Your task to perform on an android device: Search for "apple airpods pro" on target.com, select the first entry, and add it to the cart. Image 0: 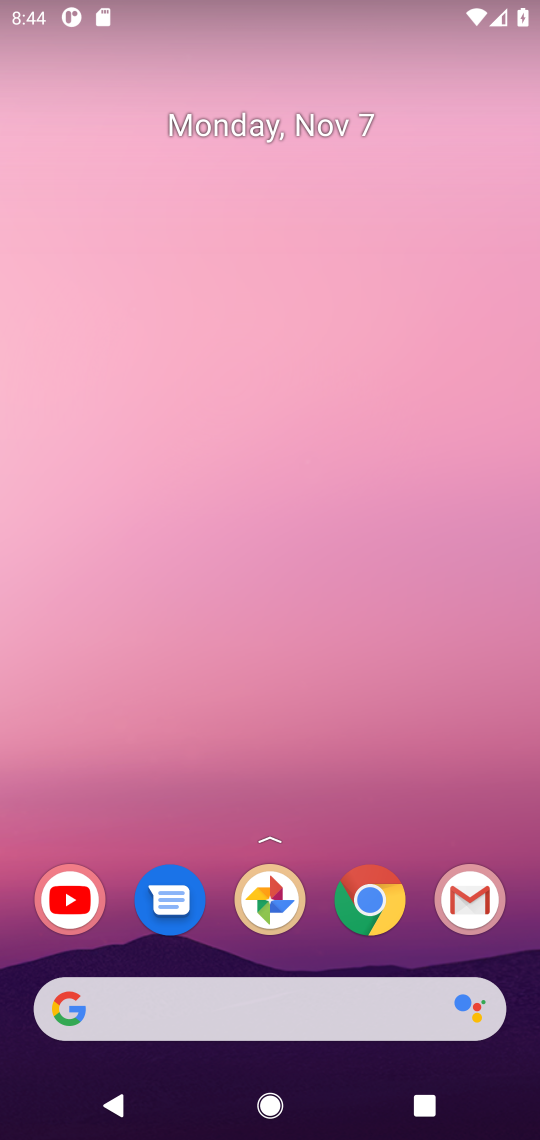
Step 0: drag from (266, 961) to (386, 197)
Your task to perform on an android device: Search for "apple airpods pro" on target.com, select the first entry, and add it to the cart. Image 1: 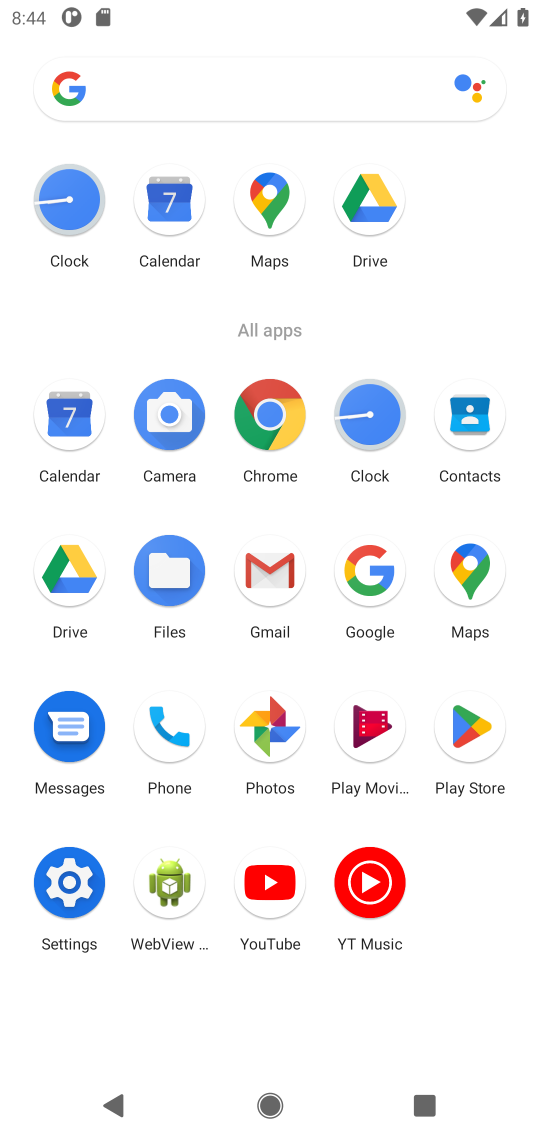
Step 1: click (381, 603)
Your task to perform on an android device: Search for "apple airpods pro" on target.com, select the first entry, and add it to the cart. Image 2: 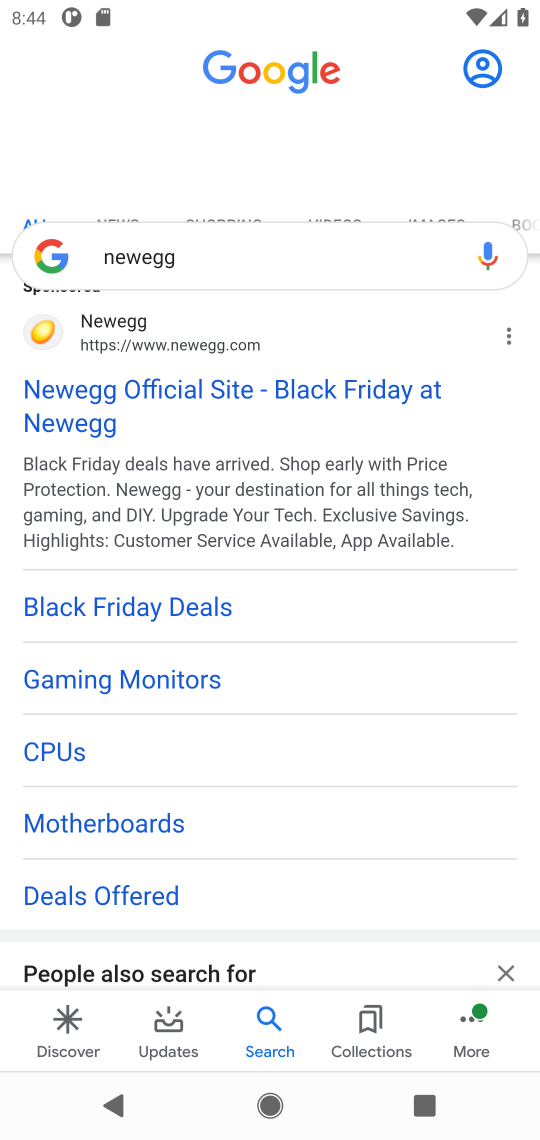
Step 2: click (323, 249)
Your task to perform on an android device: Search for "apple airpods pro" on target.com, select the first entry, and add it to the cart. Image 3: 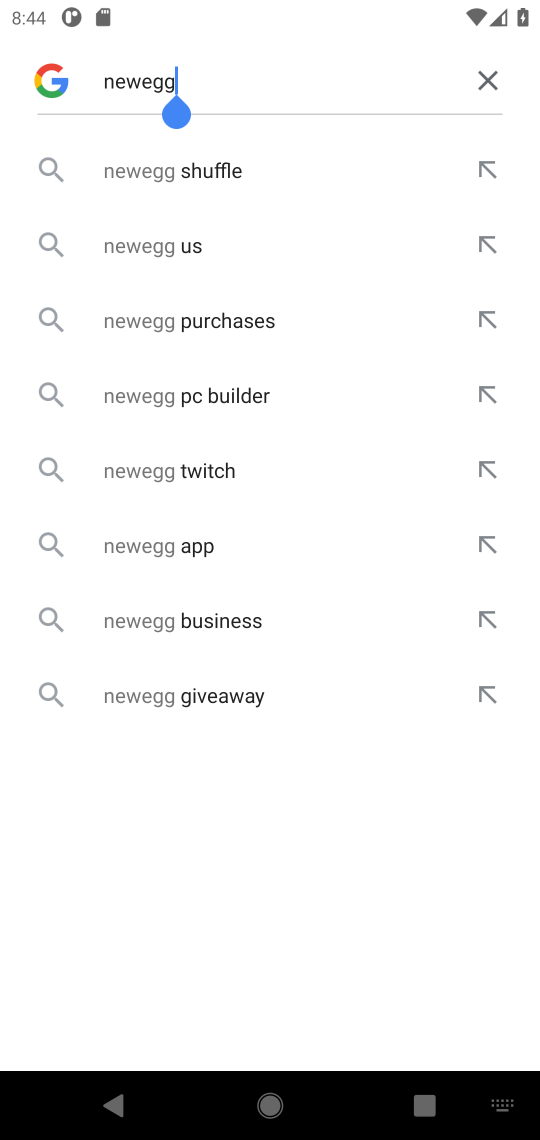
Step 3: click (490, 88)
Your task to perform on an android device: Search for "apple airpods pro" on target.com, select the first entry, and add it to the cart. Image 4: 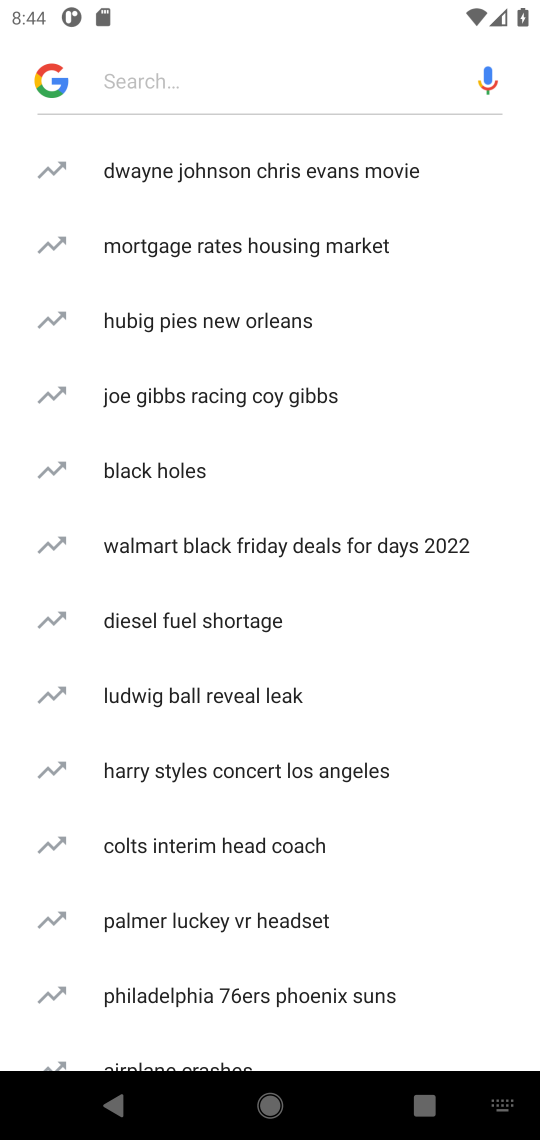
Step 4: type "target.com"
Your task to perform on an android device: Search for "apple airpods pro" on target.com, select the first entry, and add it to the cart. Image 5: 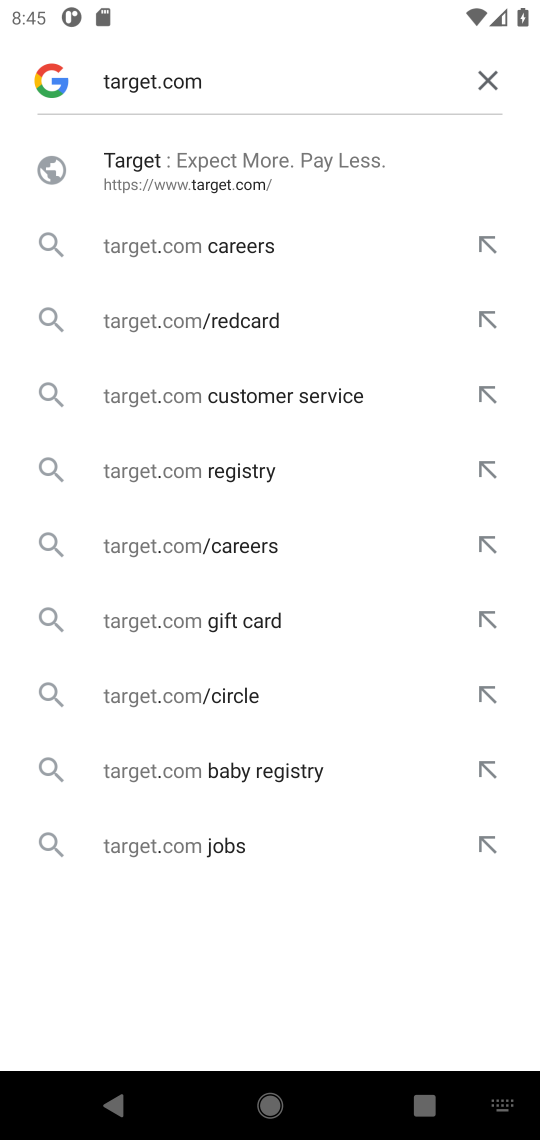
Step 5: click (329, 167)
Your task to perform on an android device: Search for "apple airpods pro" on target.com, select the first entry, and add it to the cart. Image 6: 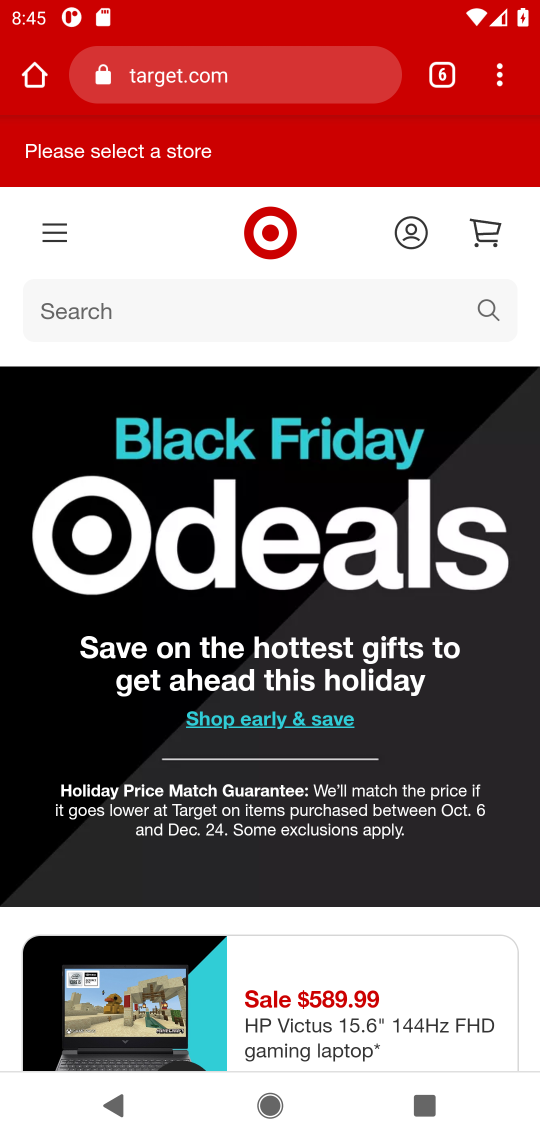
Step 6: click (254, 304)
Your task to perform on an android device: Search for "apple airpods pro" on target.com, select the first entry, and add it to the cart. Image 7: 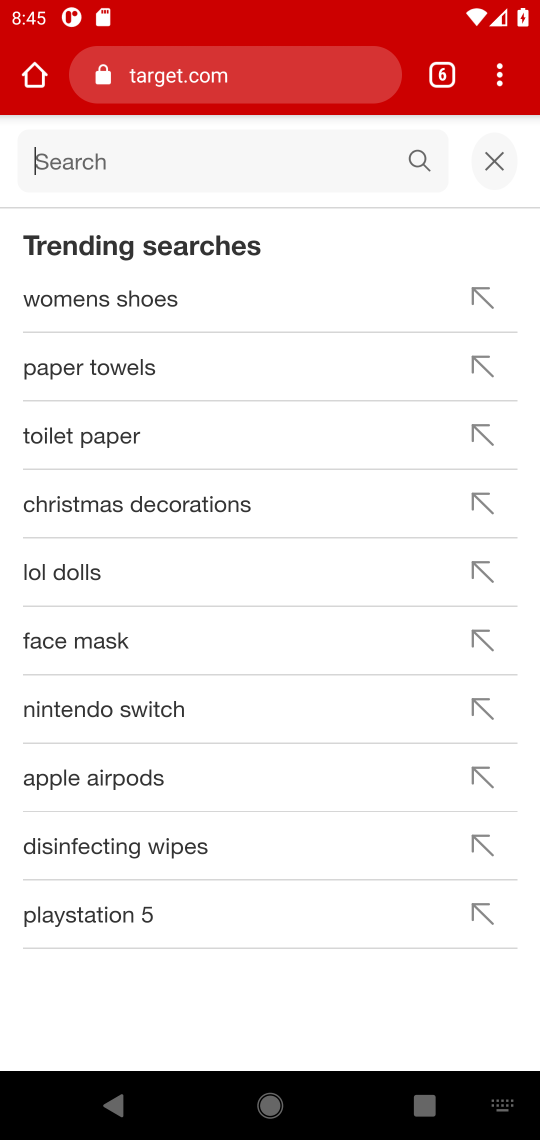
Step 7: type "apple airpods pro"
Your task to perform on an android device: Search for "apple airpods pro" on target.com, select the first entry, and add it to the cart. Image 8: 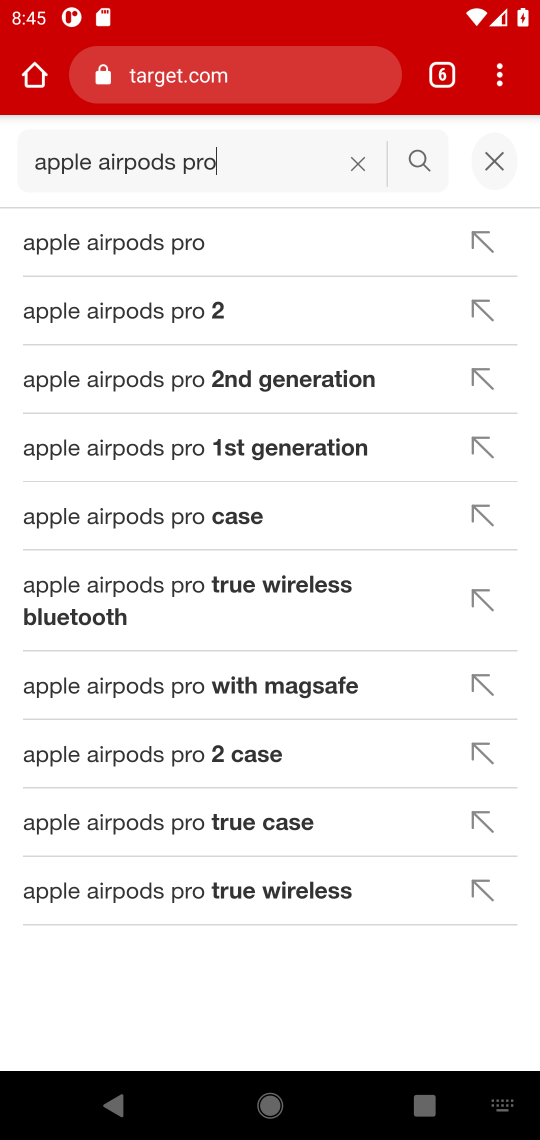
Step 8: click (204, 233)
Your task to perform on an android device: Search for "apple airpods pro" on target.com, select the first entry, and add it to the cart. Image 9: 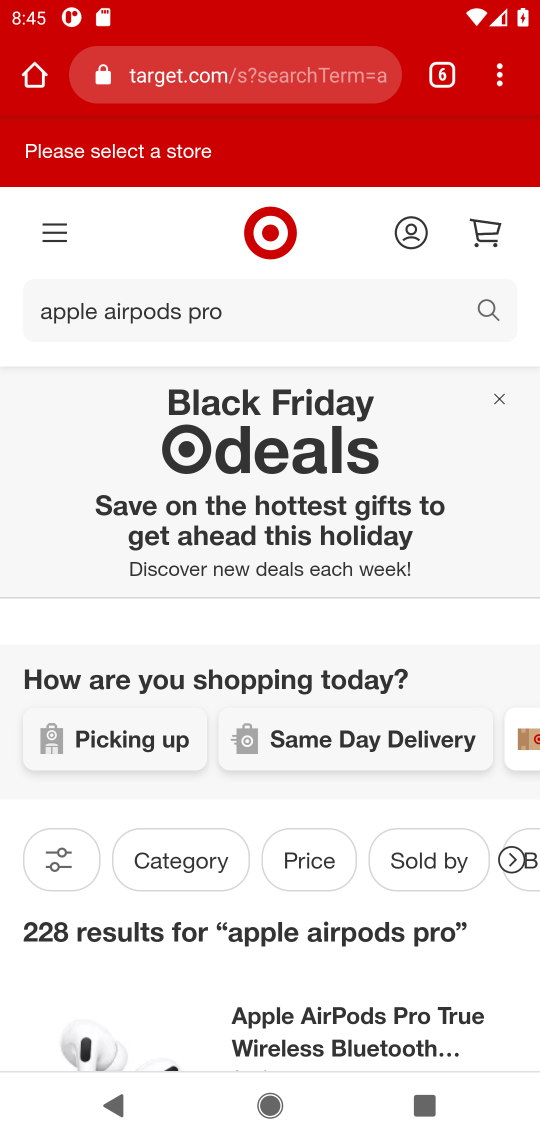
Step 9: click (485, 298)
Your task to perform on an android device: Search for "apple airpods pro" on target.com, select the first entry, and add it to the cart. Image 10: 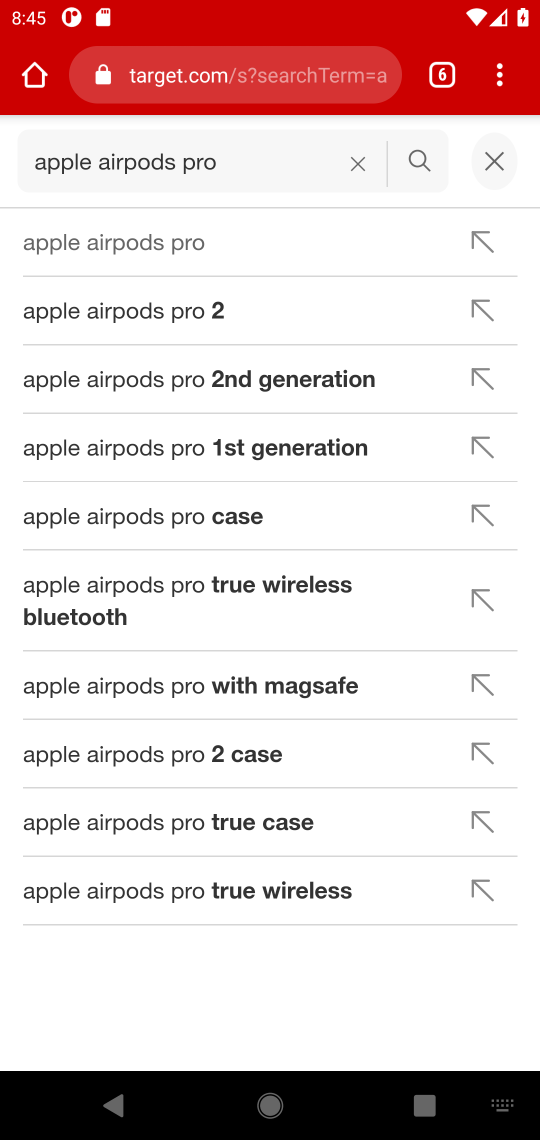
Step 10: click (287, 242)
Your task to perform on an android device: Search for "apple airpods pro" on target.com, select the first entry, and add it to the cart. Image 11: 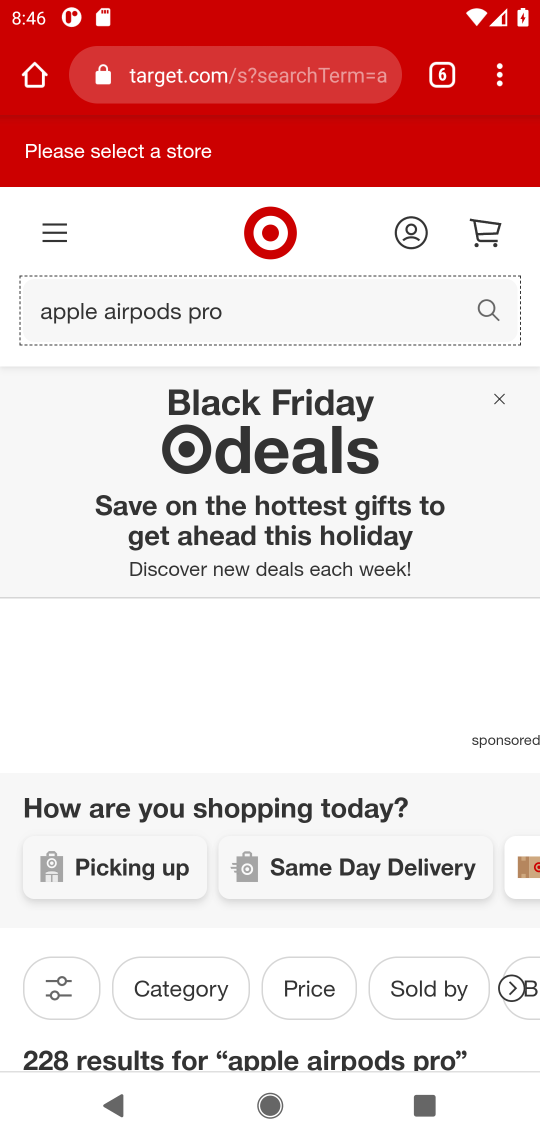
Step 11: drag from (275, 729) to (340, 433)
Your task to perform on an android device: Search for "apple airpods pro" on target.com, select the first entry, and add it to the cart. Image 12: 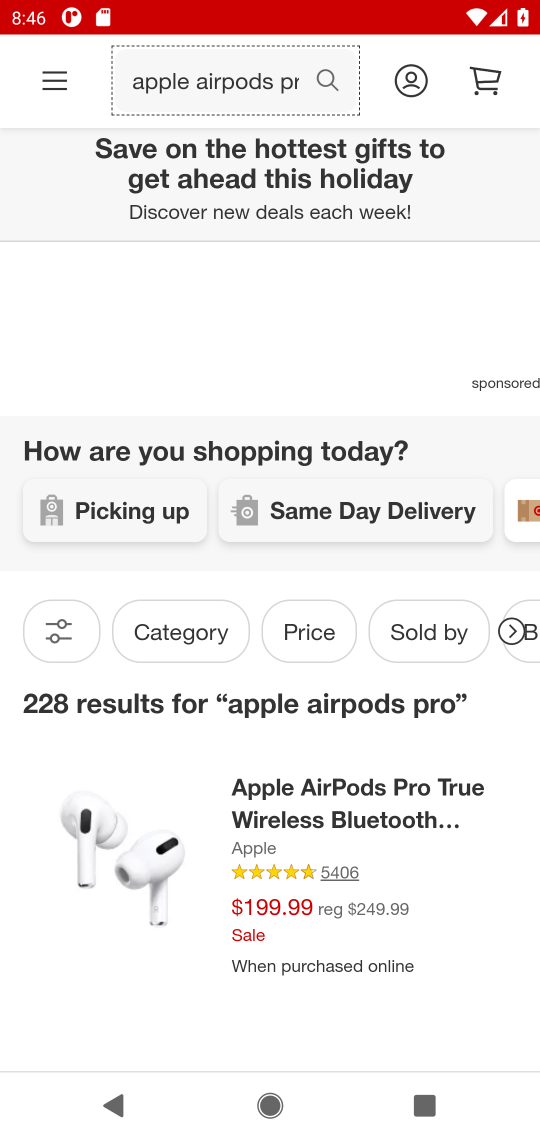
Step 12: click (327, 827)
Your task to perform on an android device: Search for "apple airpods pro" on target.com, select the first entry, and add it to the cart. Image 13: 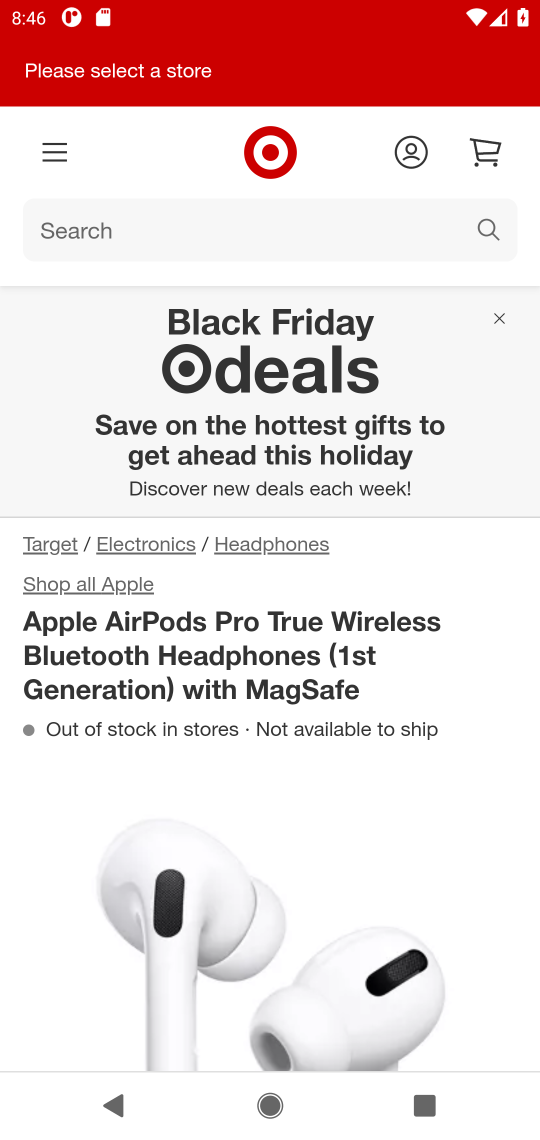
Step 13: drag from (332, 843) to (377, 292)
Your task to perform on an android device: Search for "apple airpods pro" on target.com, select the first entry, and add it to the cart. Image 14: 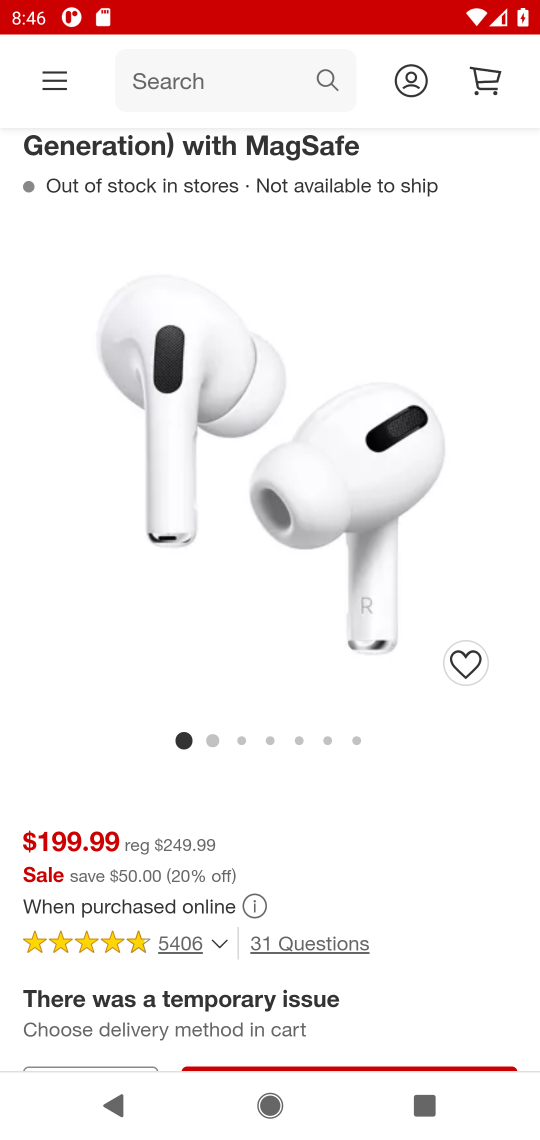
Step 14: drag from (326, 762) to (351, 549)
Your task to perform on an android device: Search for "apple airpods pro" on target.com, select the first entry, and add it to the cart. Image 15: 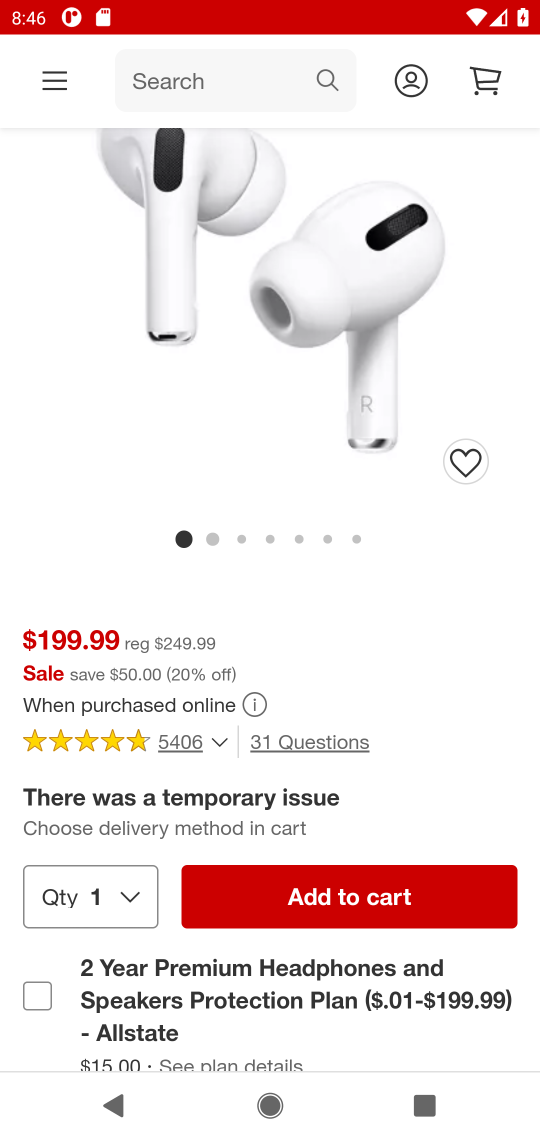
Step 15: click (356, 909)
Your task to perform on an android device: Search for "apple airpods pro" on target.com, select the first entry, and add it to the cart. Image 16: 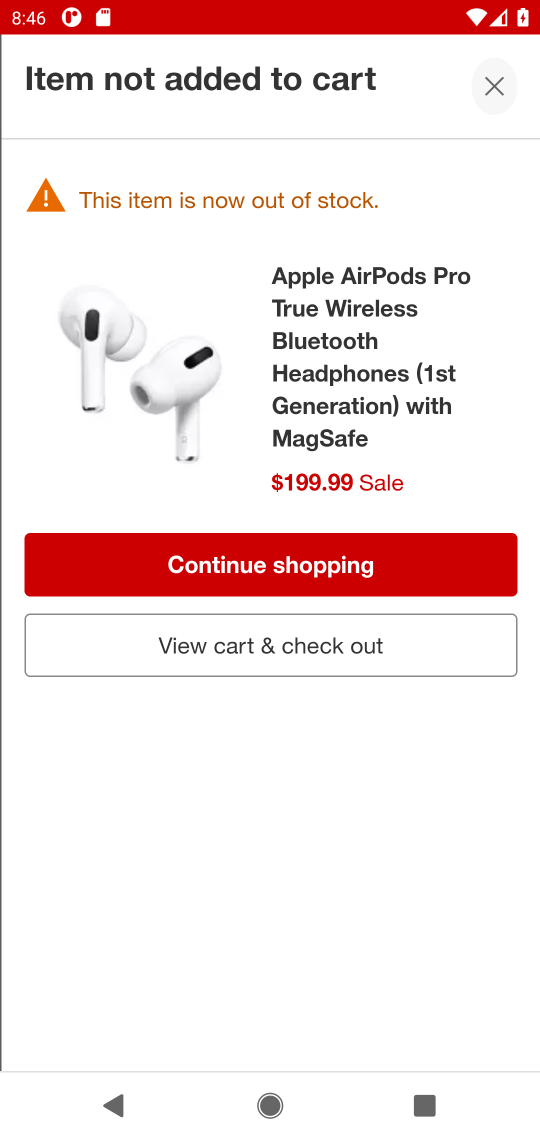
Step 16: click (391, 576)
Your task to perform on an android device: Search for "apple airpods pro" on target.com, select the first entry, and add it to the cart. Image 17: 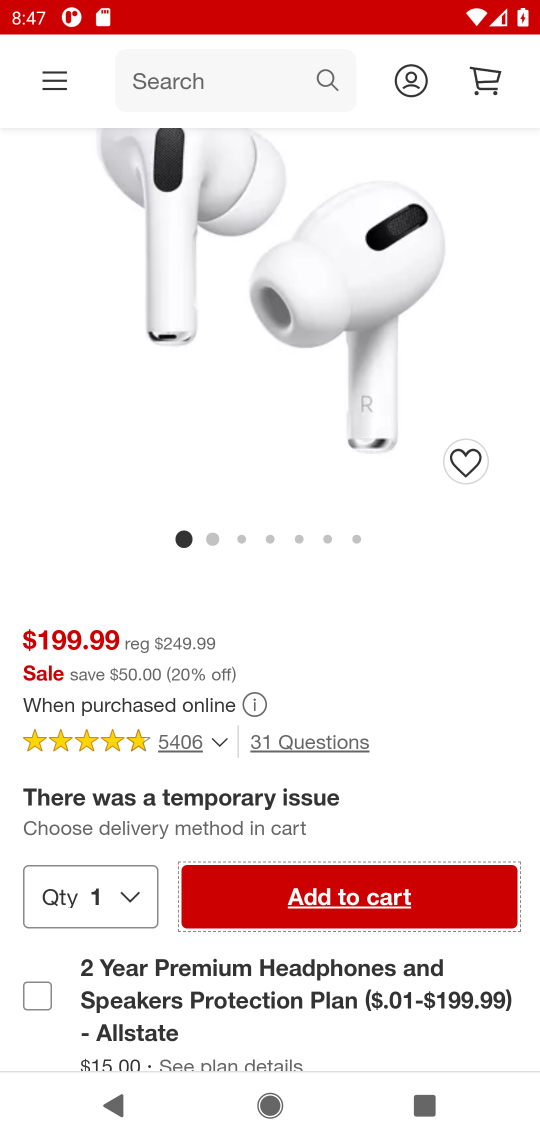
Step 17: click (391, 576)
Your task to perform on an android device: Search for "apple airpods pro" on target.com, select the first entry, and add it to the cart. Image 18: 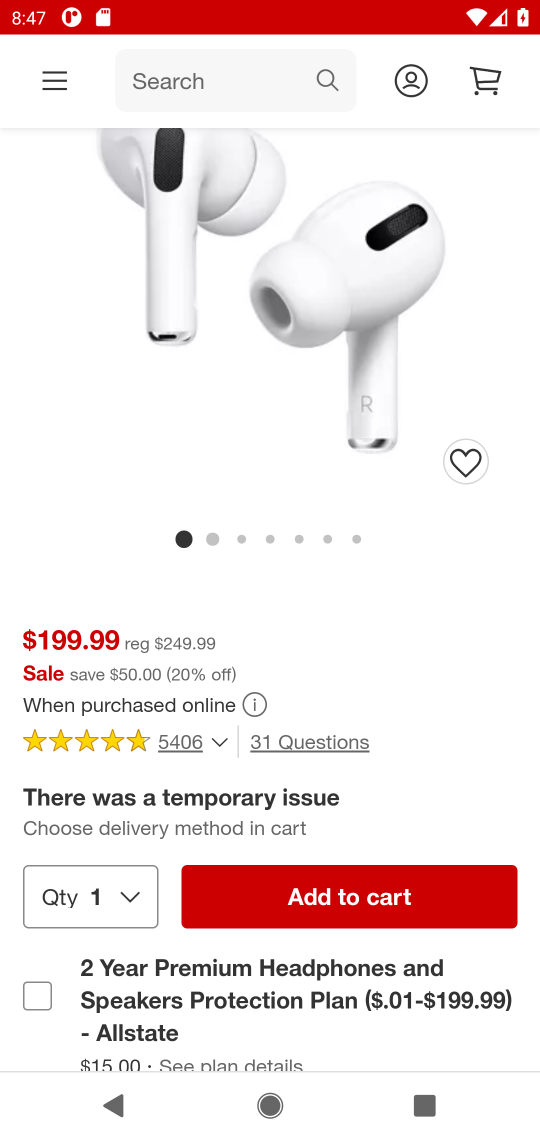
Step 18: click (426, 906)
Your task to perform on an android device: Search for "apple airpods pro" on target.com, select the first entry, and add it to the cart. Image 19: 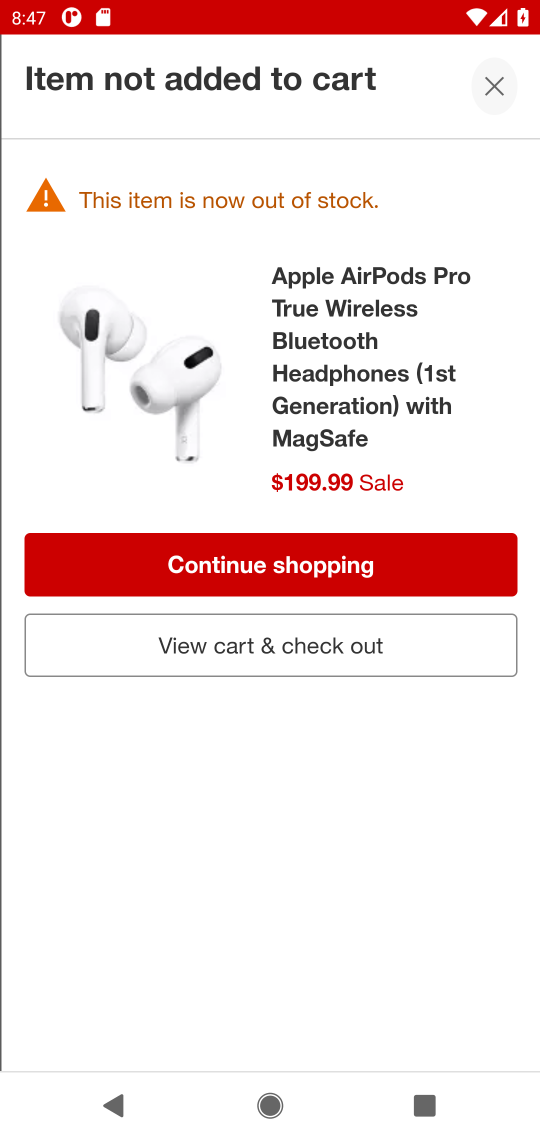
Step 19: task complete